Your task to perform on an android device: turn on airplane mode Image 0: 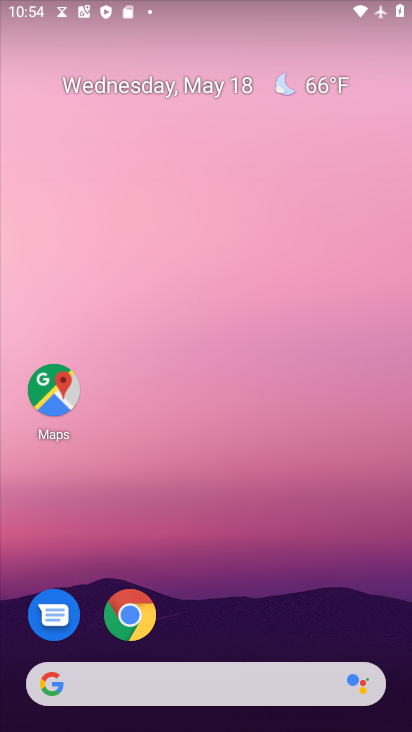
Step 0: drag from (243, 588) to (239, 0)
Your task to perform on an android device: turn on airplane mode Image 1: 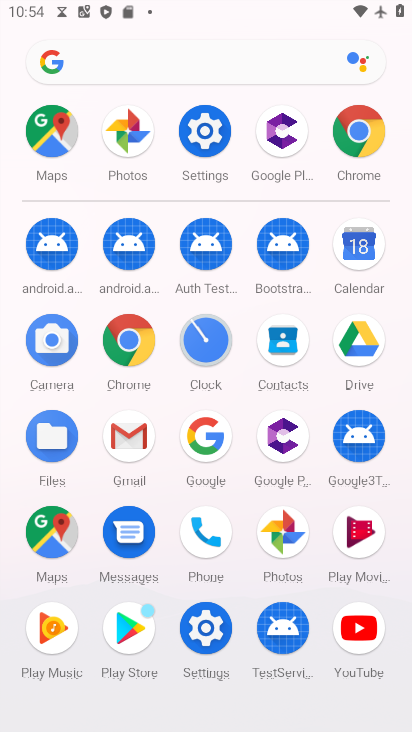
Step 1: drag from (3, 484) to (11, 193)
Your task to perform on an android device: turn on airplane mode Image 2: 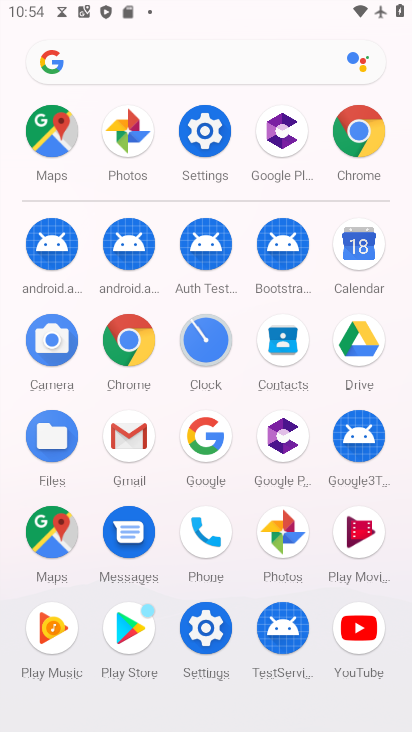
Step 2: click (203, 625)
Your task to perform on an android device: turn on airplane mode Image 3: 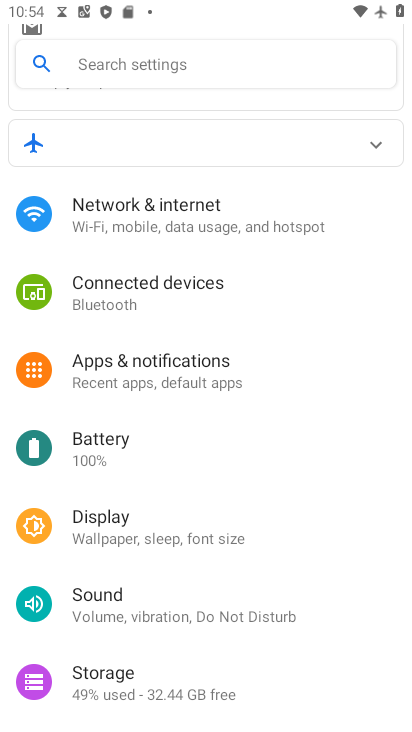
Step 3: click (180, 222)
Your task to perform on an android device: turn on airplane mode Image 4: 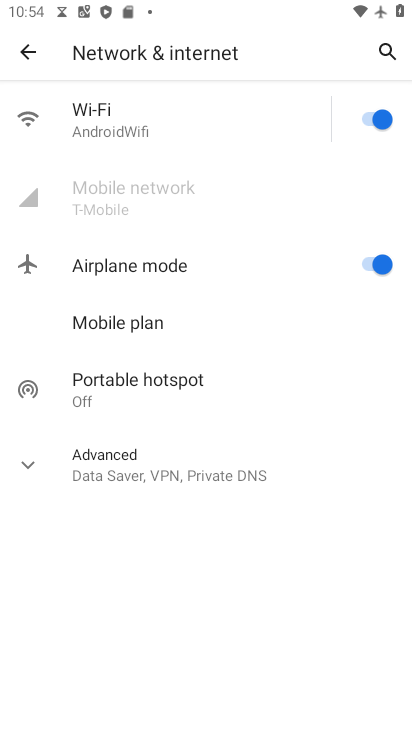
Step 4: click (29, 449)
Your task to perform on an android device: turn on airplane mode Image 5: 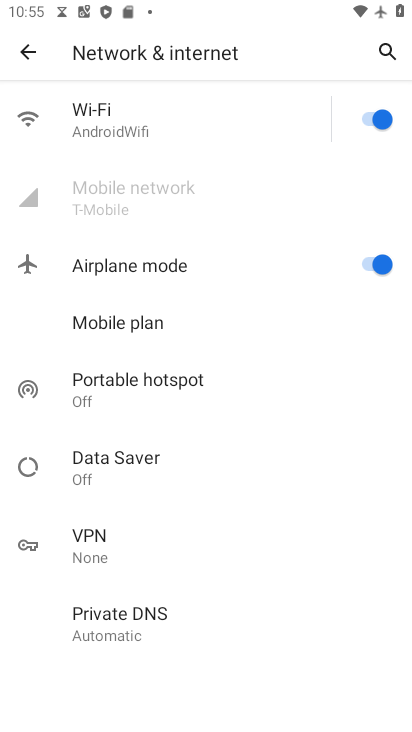
Step 5: task complete